Your task to perform on an android device: set default search engine in the chrome app Image 0: 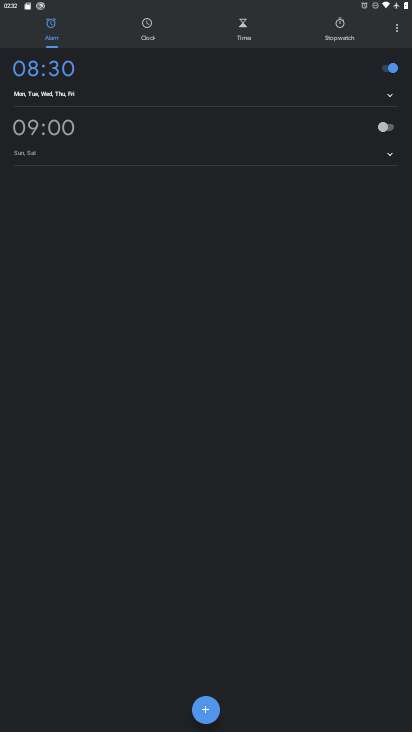
Step 0: press home button
Your task to perform on an android device: set default search engine in the chrome app Image 1: 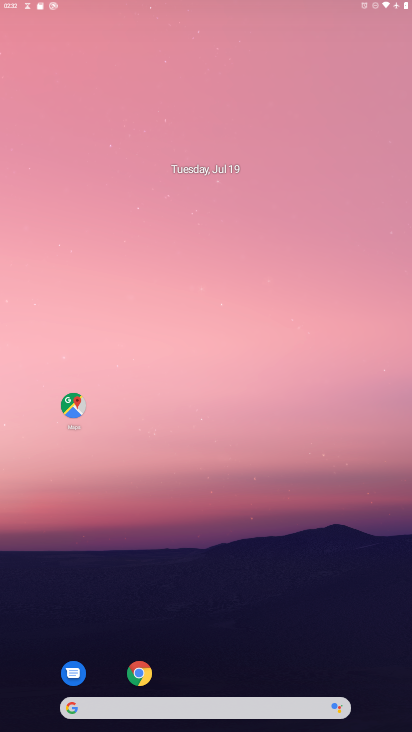
Step 1: drag from (271, 592) to (298, 248)
Your task to perform on an android device: set default search engine in the chrome app Image 2: 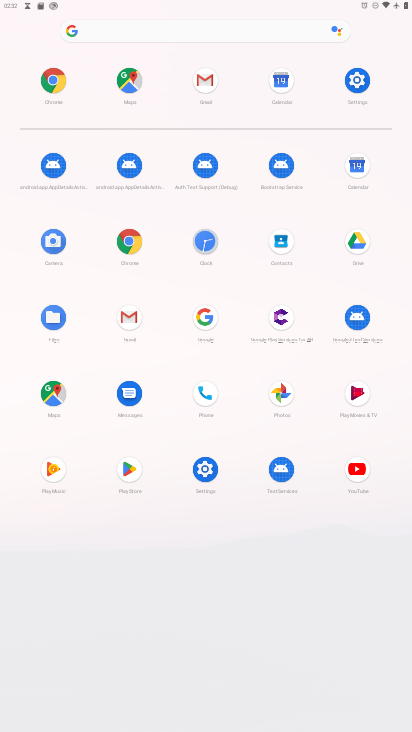
Step 2: click (115, 244)
Your task to perform on an android device: set default search engine in the chrome app Image 3: 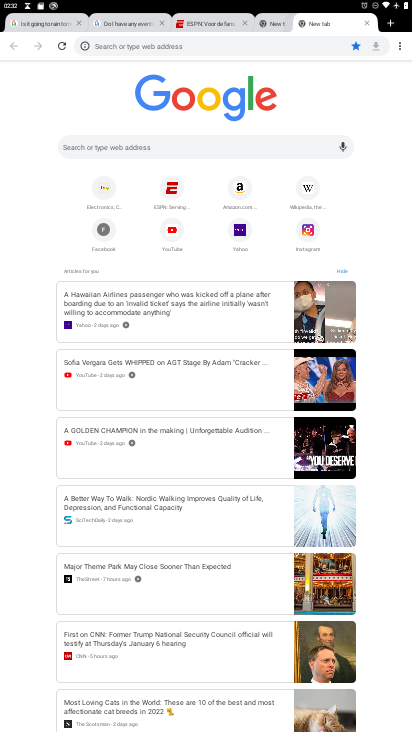
Step 3: click (403, 41)
Your task to perform on an android device: set default search engine in the chrome app Image 4: 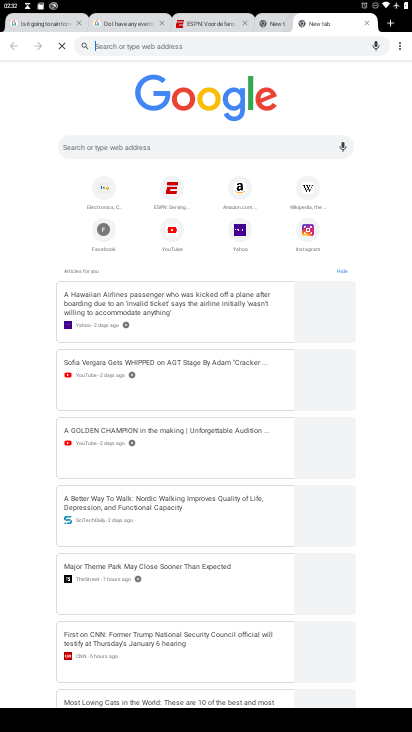
Step 4: click (403, 41)
Your task to perform on an android device: set default search engine in the chrome app Image 5: 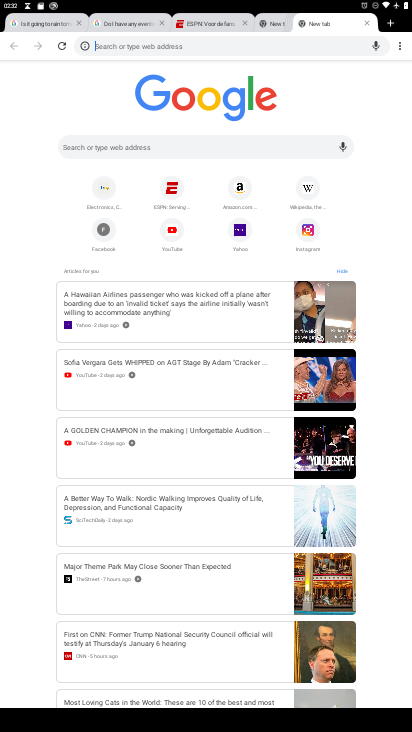
Step 5: click (403, 41)
Your task to perform on an android device: set default search engine in the chrome app Image 6: 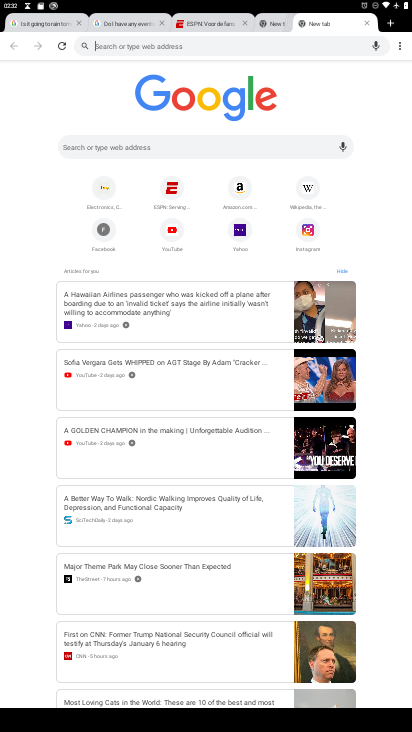
Step 6: click (398, 41)
Your task to perform on an android device: set default search engine in the chrome app Image 7: 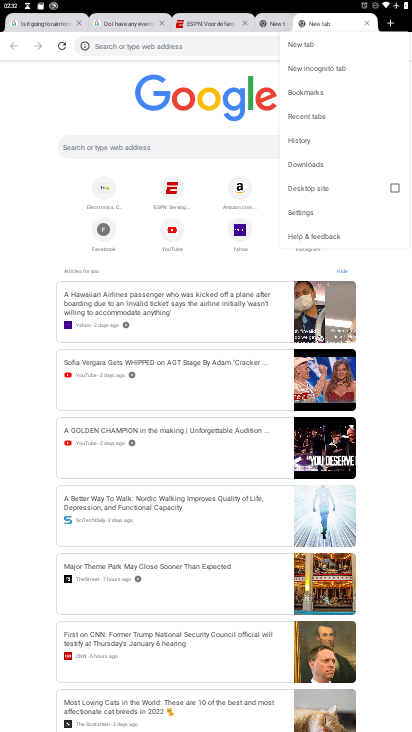
Step 7: click (310, 205)
Your task to perform on an android device: set default search engine in the chrome app Image 8: 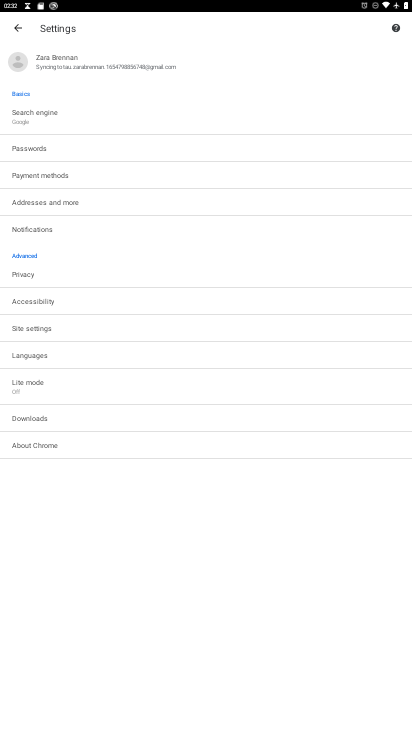
Step 8: click (30, 123)
Your task to perform on an android device: set default search engine in the chrome app Image 9: 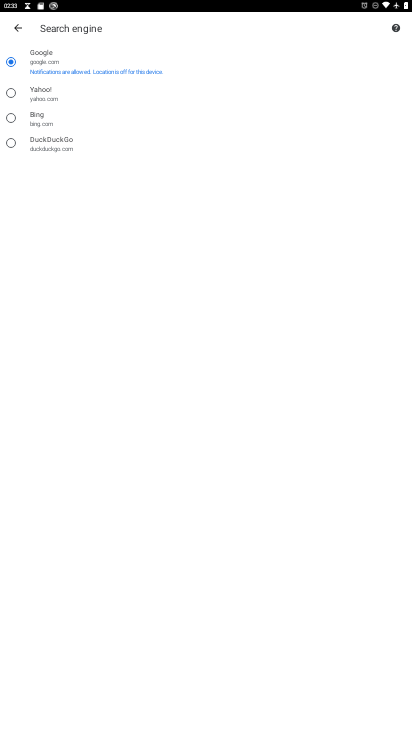
Step 9: click (23, 87)
Your task to perform on an android device: set default search engine in the chrome app Image 10: 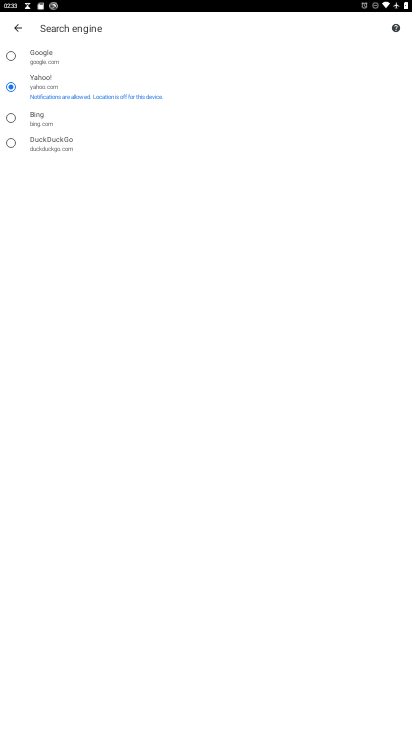
Step 10: task complete